Your task to perform on an android device: set default search engine in the chrome app Image 0: 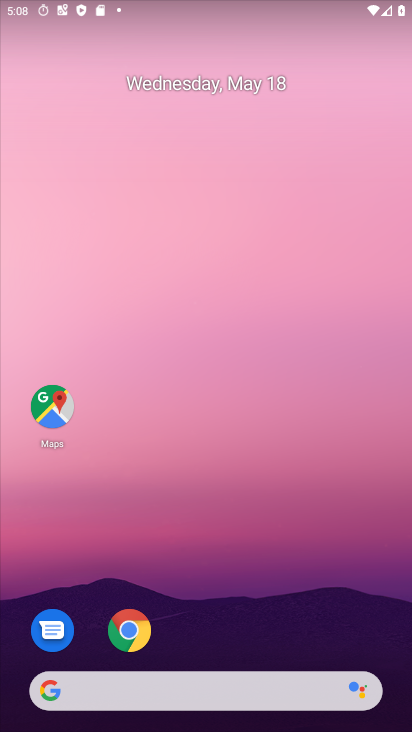
Step 0: drag from (230, 634) to (225, 344)
Your task to perform on an android device: set default search engine in the chrome app Image 1: 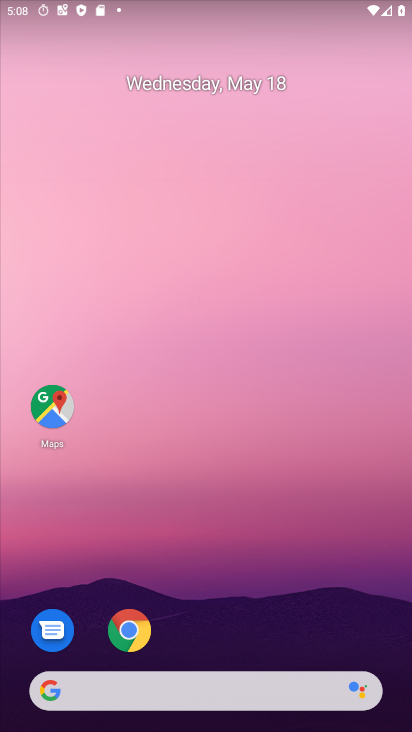
Step 1: drag from (184, 668) to (205, 206)
Your task to perform on an android device: set default search engine in the chrome app Image 2: 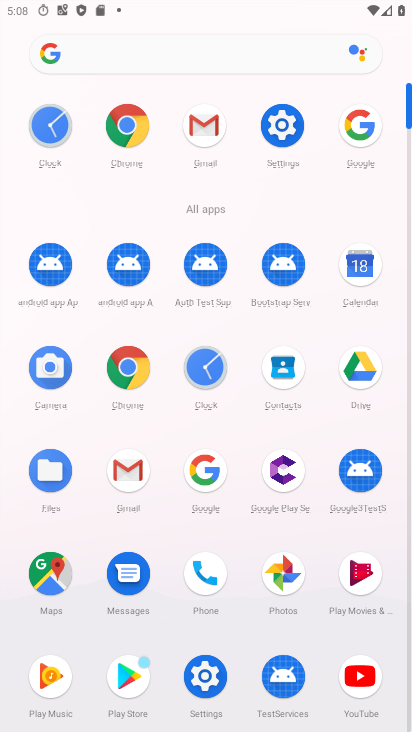
Step 2: click (123, 116)
Your task to perform on an android device: set default search engine in the chrome app Image 3: 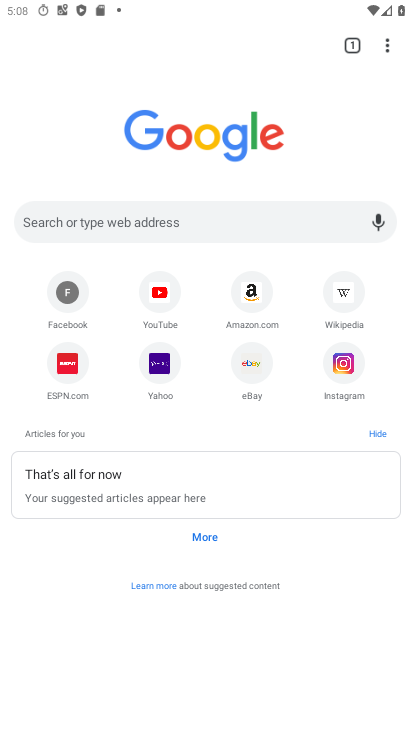
Step 3: click (390, 47)
Your task to perform on an android device: set default search engine in the chrome app Image 4: 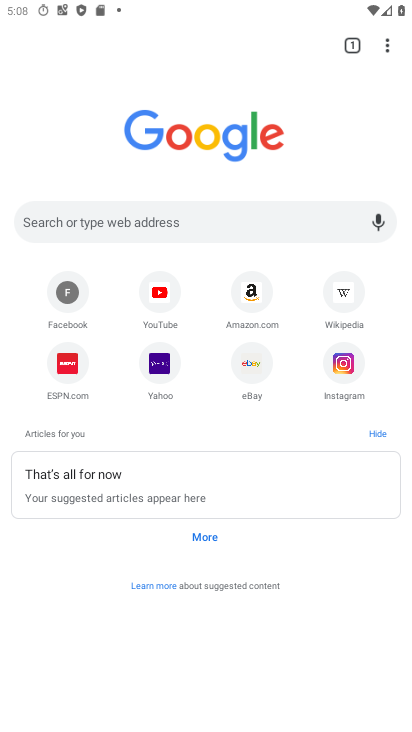
Step 4: click (384, 53)
Your task to perform on an android device: set default search engine in the chrome app Image 5: 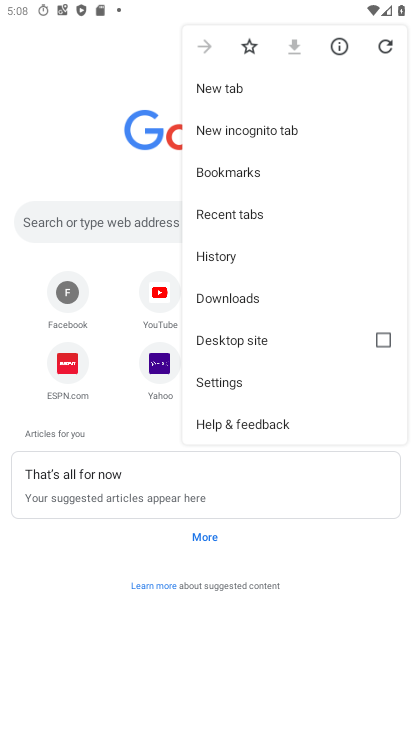
Step 5: click (210, 379)
Your task to perform on an android device: set default search engine in the chrome app Image 6: 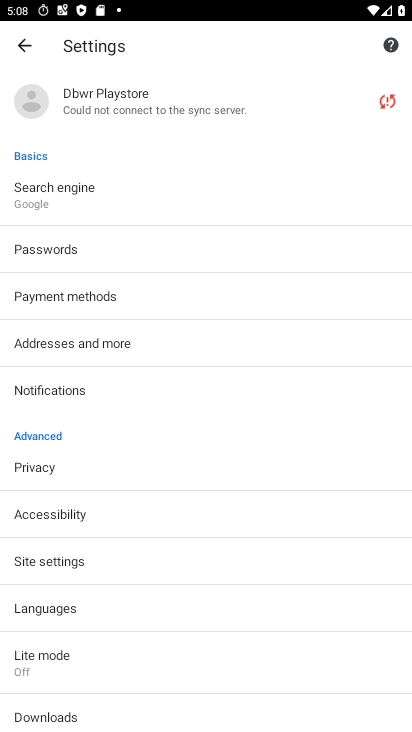
Step 6: click (42, 196)
Your task to perform on an android device: set default search engine in the chrome app Image 7: 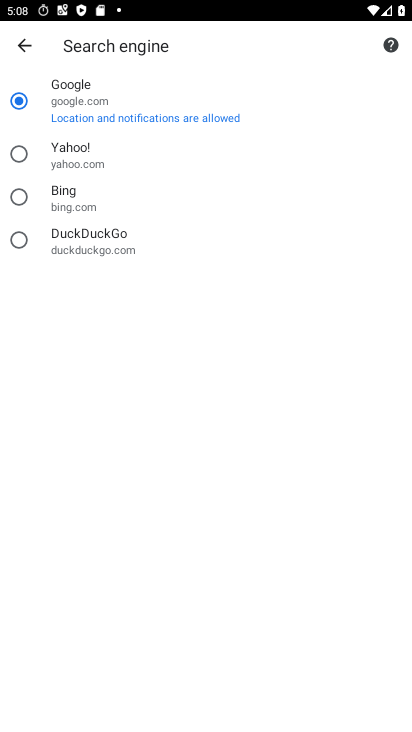
Step 7: task complete